Your task to perform on an android device: change alarm snooze length Image 0: 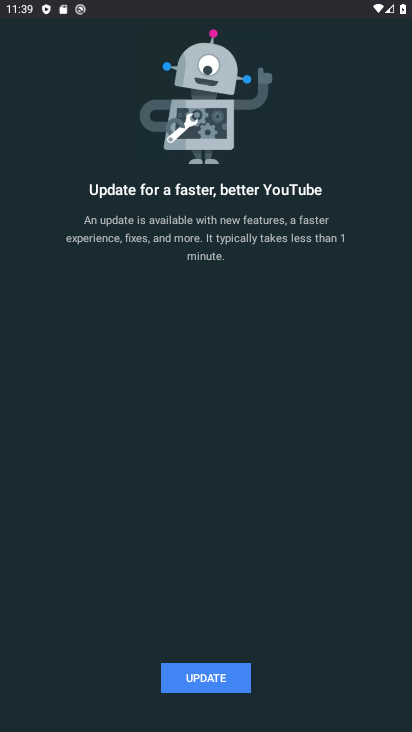
Step 0: press home button
Your task to perform on an android device: change alarm snooze length Image 1: 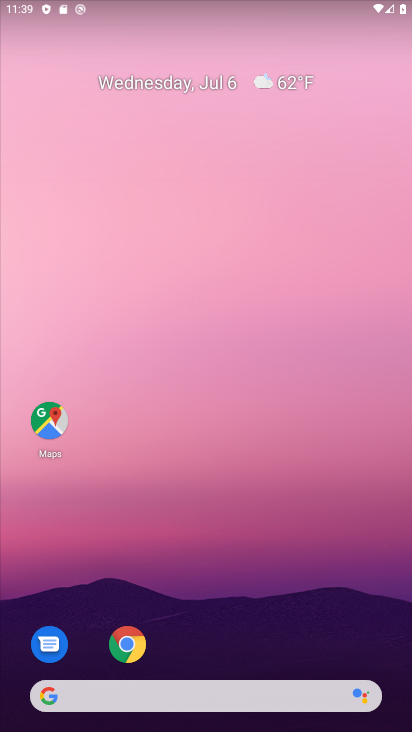
Step 1: drag from (240, 666) to (203, 33)
Your task to perform on an android device: change alarm snooze length Image 2: 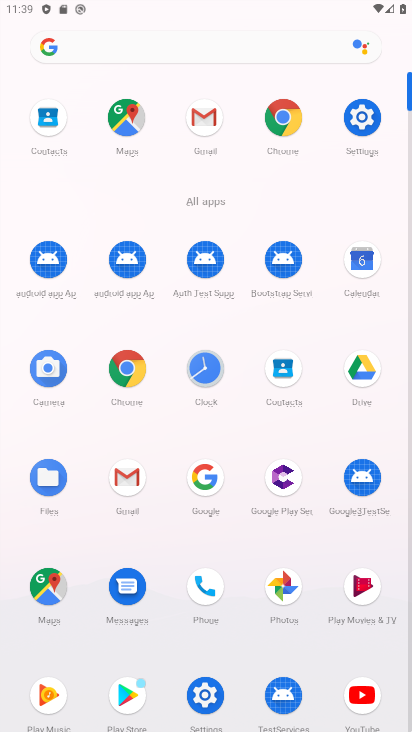
Step 2: click (208, 361)
Your task to perform on an android device: change alarm snooze length Image 3: 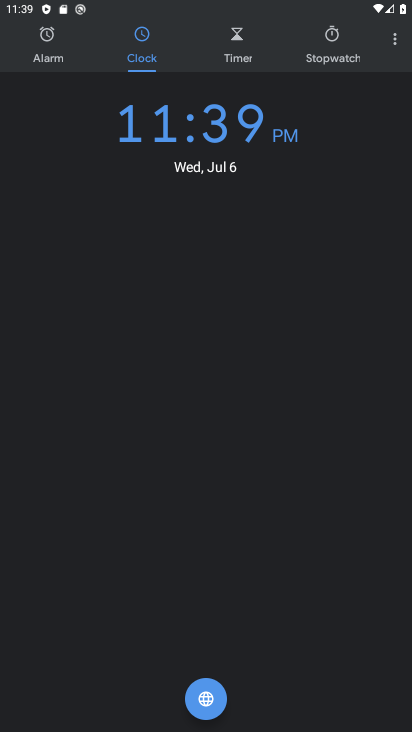
Step 3: click (391, 42)
Your task to perform on an android device: change alarm snooze length Image 4: 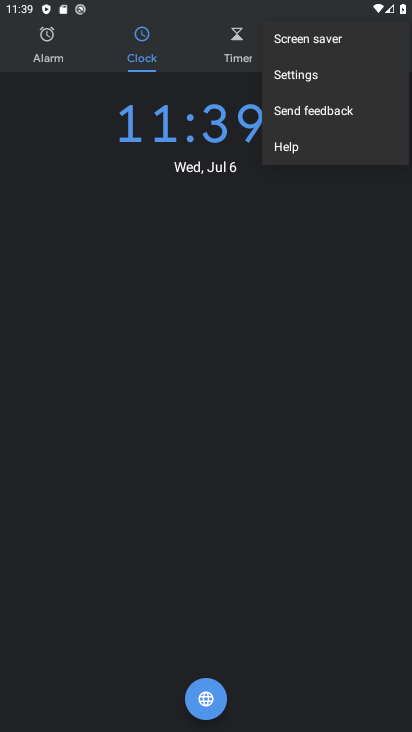
Step 4: click (320, 84)
Your task to perform on an android device: change alarm snooze length Image 5: 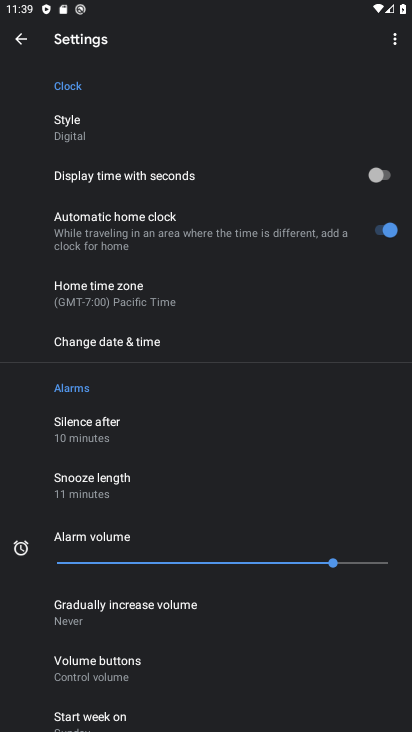
Step 5: click (125, 488)
Your task to perform on an android device: change alarm snooze length Image 6: 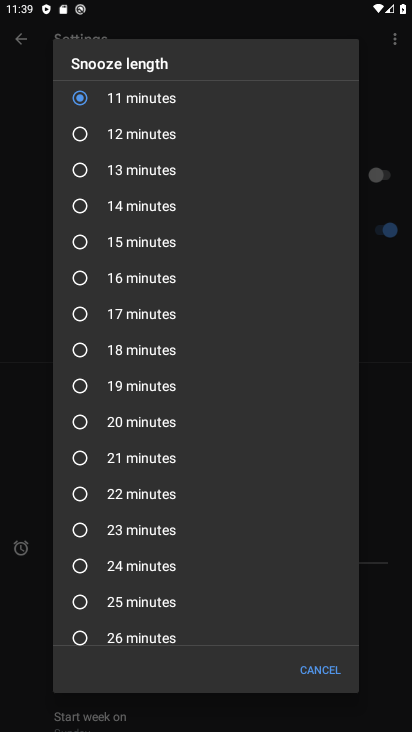
Step 6: click (109, 143)
Your task to perform on an android device: change alarm snooze length Image 7: 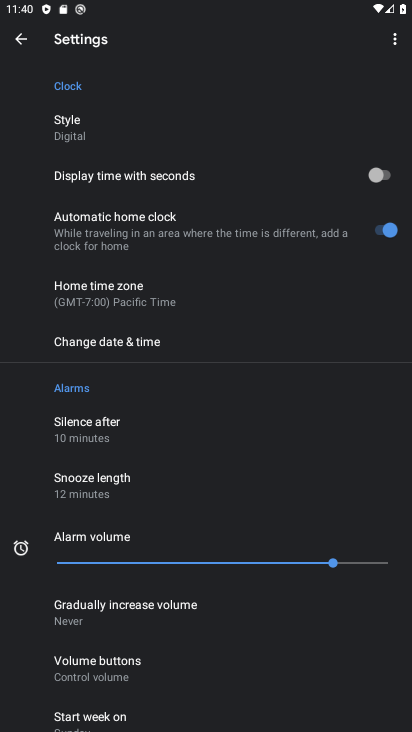
Step 7: task complete